Your task to perform on an android device: delete the emails in spam in the gmail app Image 0: 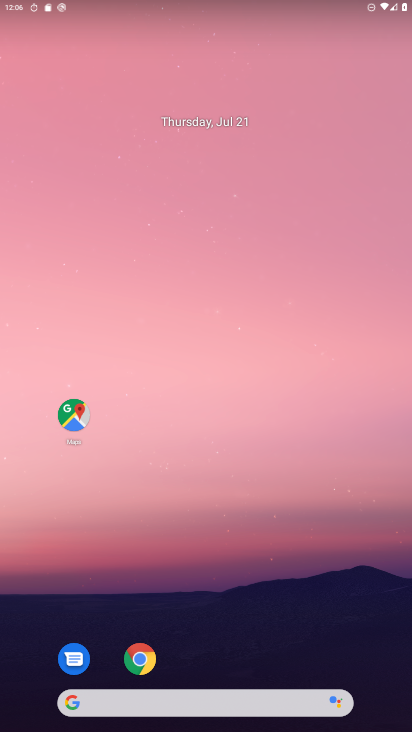
Step 0: drag from (334, 620) to (296, 143)
Your task to perform on an android device: delete the emails in spam in the gmail app Image 1: 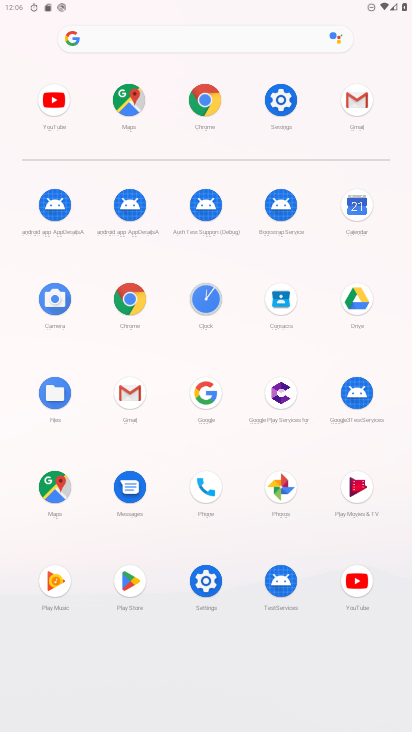
Step 1: click (136, 391)
Your task to perform on an android device: delete the emails in spam in the gmail app Image 2: 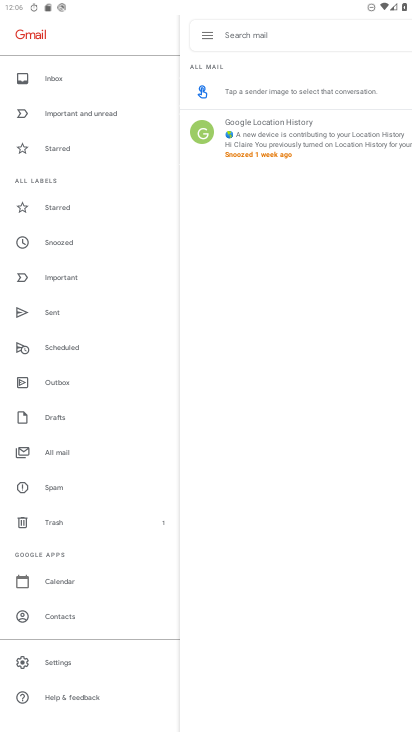
Step 2: click (54, 487)
Your task to perform on an android device: delete the emails in spam in the gmail app Image 3: 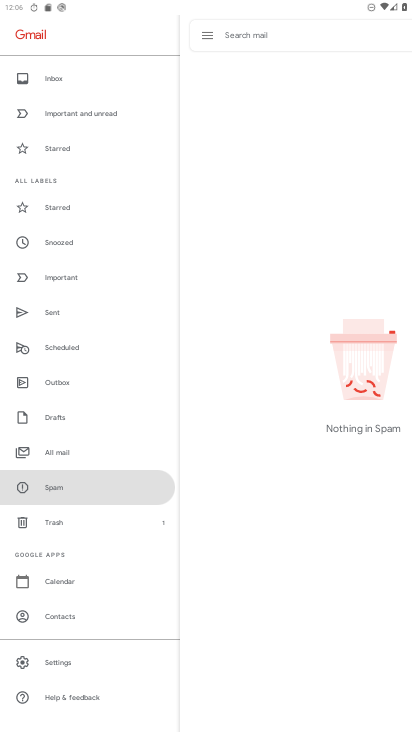
Step 3: task complete